Your task to perform on an android device: make emails show in primary in the gmail app Image 0: 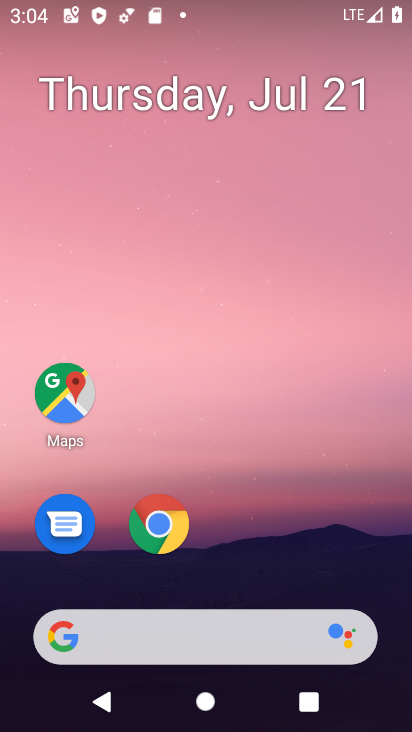
Step 0: drag from (233, 534) to (287, 20)
Your task to perform on an android device: make emails show in primary in the gmail app Image 1: 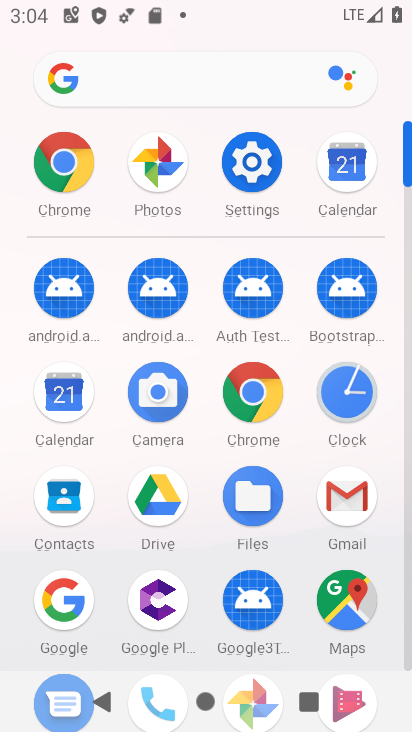
Step 1: click (341, 498)
Your task to perform on an android device: make emails show in primary in the gmail app Image 2: 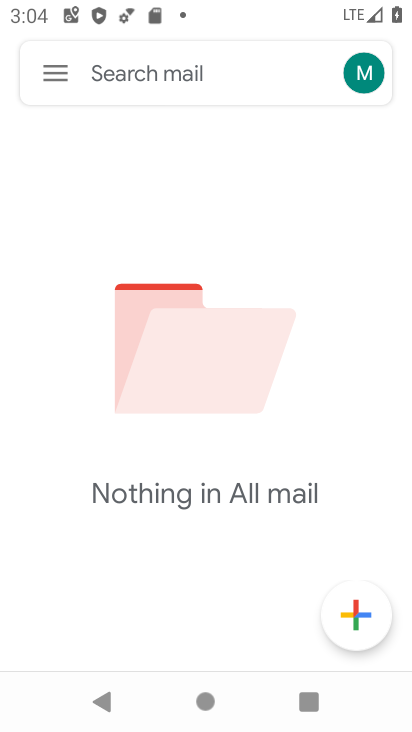
Step 2: click (57, 74)
Your task to perform on an android device: make emails show in primary in the gmail app Image 3: 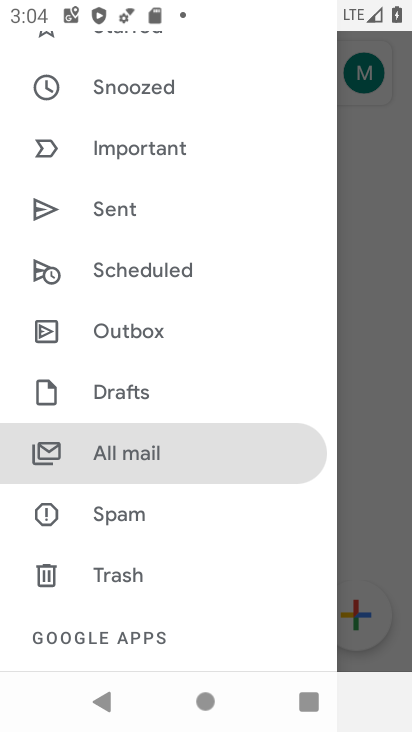
Step 3: drag from (143, 538) to (222, 18)
Your task to perform on an android device: make emails show in primary in the gmail app Image 4: 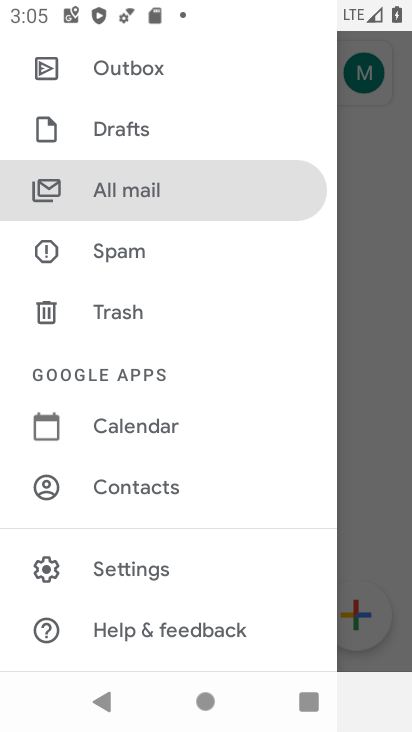
Step 4: click (148, 569)
Your task to perform on an android device: make emails show in primary in the gmail app Image 5: 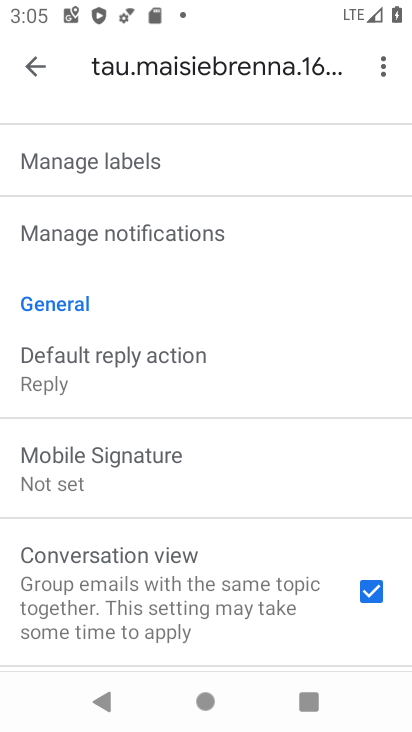
Step 5: drag from (237, 531) to (272, 217)
Your task to perform on an android device: make emails show in primary in the gmail app Image 6: 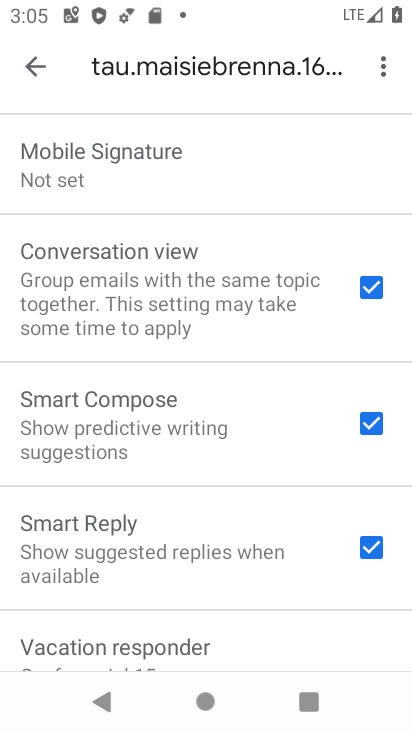
Step 6: drag from (217, 157) to (234, 575)
Your task to perform on an android device: make emails show in primary in the gmail app Image 7: 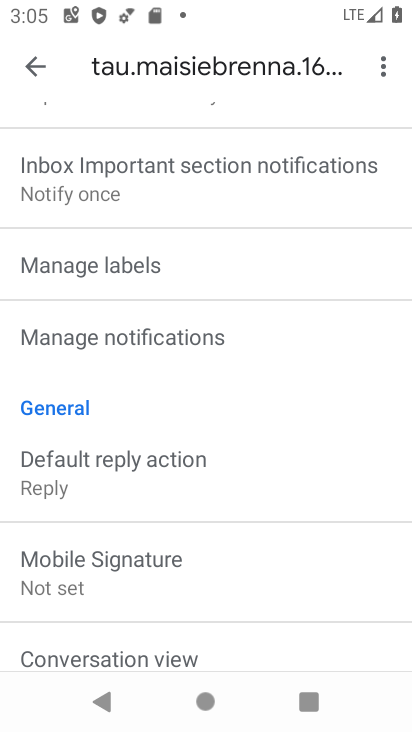
Step 7: drag from (215, 248) to (238, 570)
Your task to perform on an android device: make emails show in primary in the gmail app Image 8: 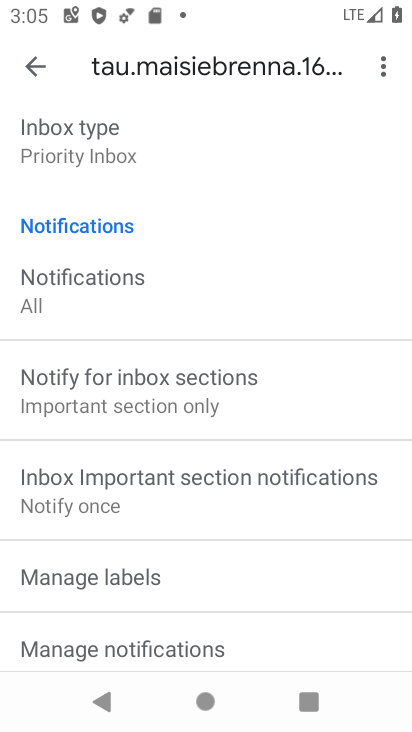
Step 8: click (102, 143)
Your task to perform on an android device: make emails show in primary in the gmail app Image 9: 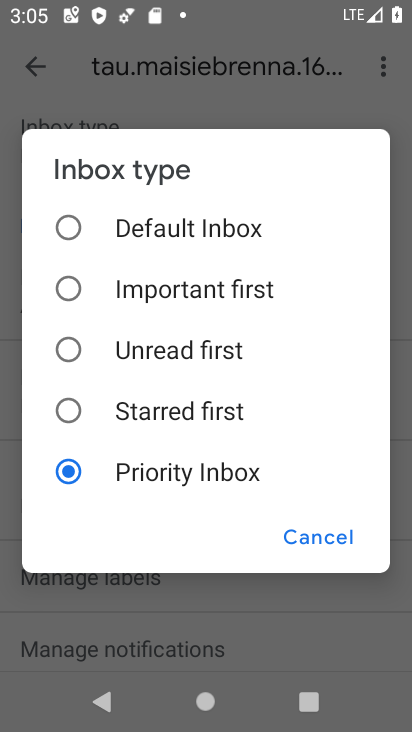
Step 9: click (70, 218)
Your task to perform on an android device: make emails show in primary in the gmail app Image 10: 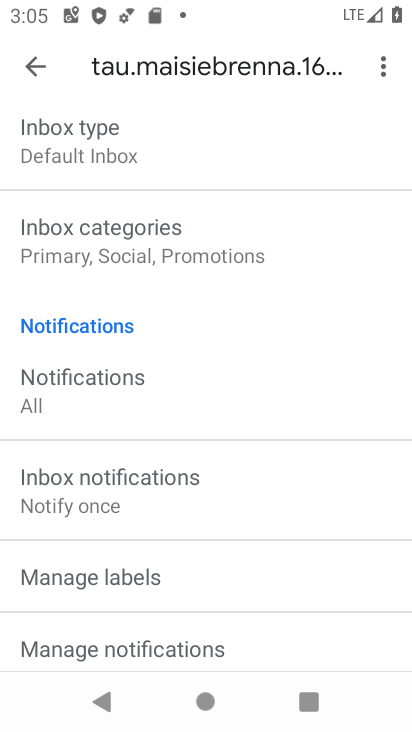
Step 10: click (92, 232)
Your task to perform on an android device: make emails show in primary in the gmail app Image 11: 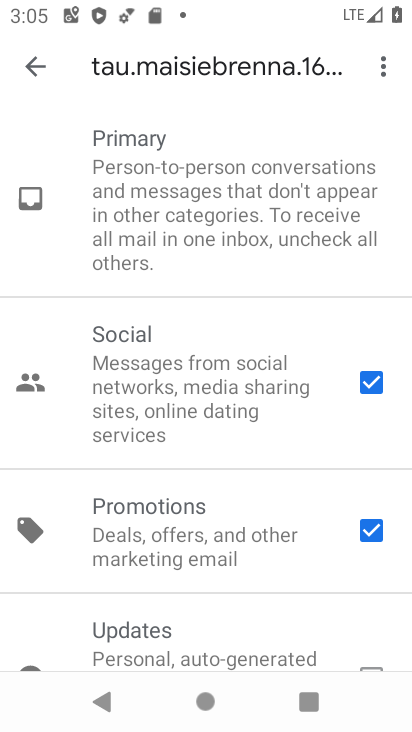
Step 11: click (369, 385)
Your task to perform on an android device: make emails show in primary in the gmail app Image 12: 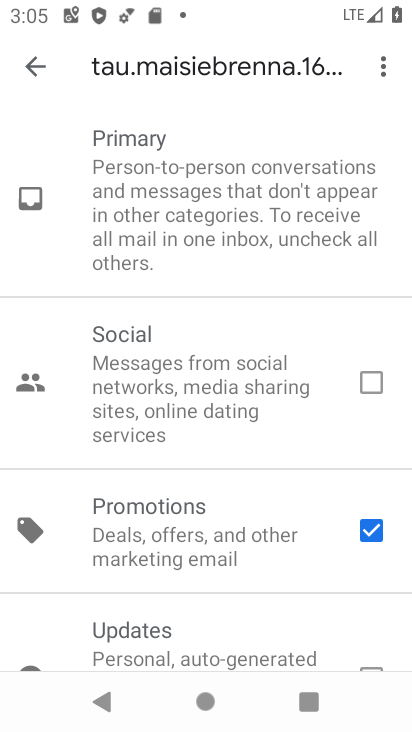
Step 12: click (372, 529)
Your task to perform on an android device: make emails show in primary in the gmail app Image 13: 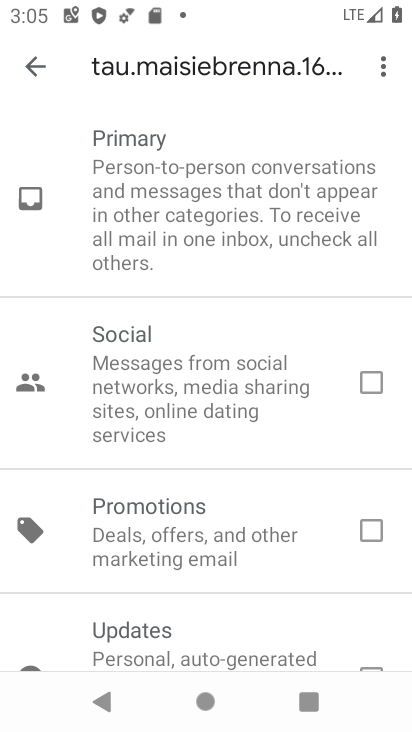
Step 13: click (36, 65)
Your task to perform on an android device: make emails show in primary in the gmail app Image 14: 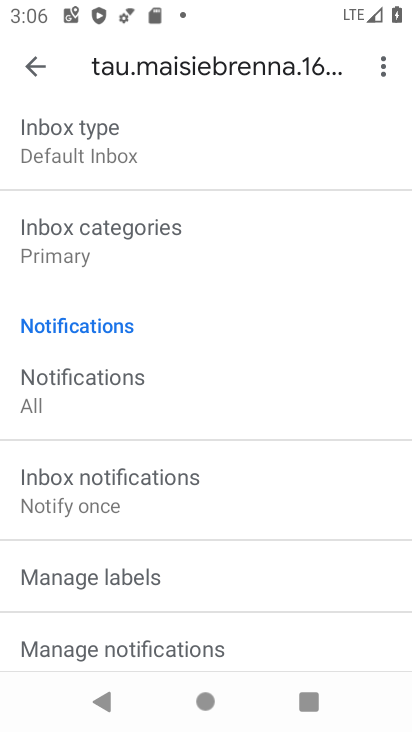
Step 14: task complete